Your task to perform on an android device: manage bookmarks in the chrome app Image 0: 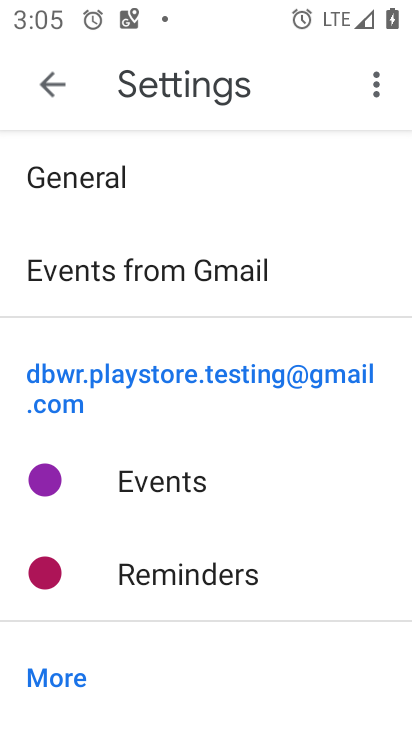
Step 0: press back button
Your task to perform on an android device: manage bookmarks in the chrome app Image 1: 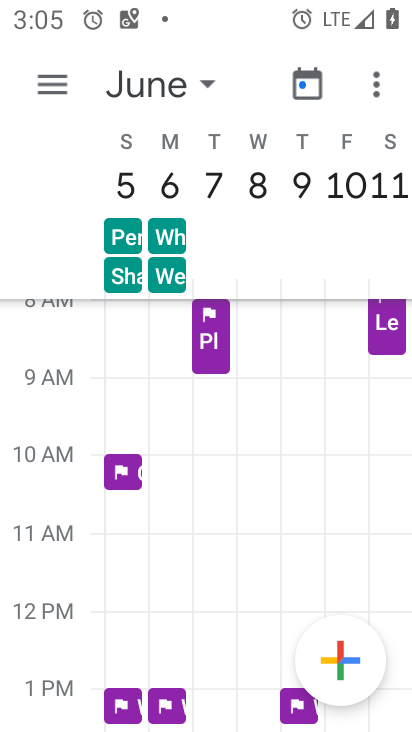
Step 1: press home button
Your task to perform on an android device: manage bookmarks in the chrome app Image 2: 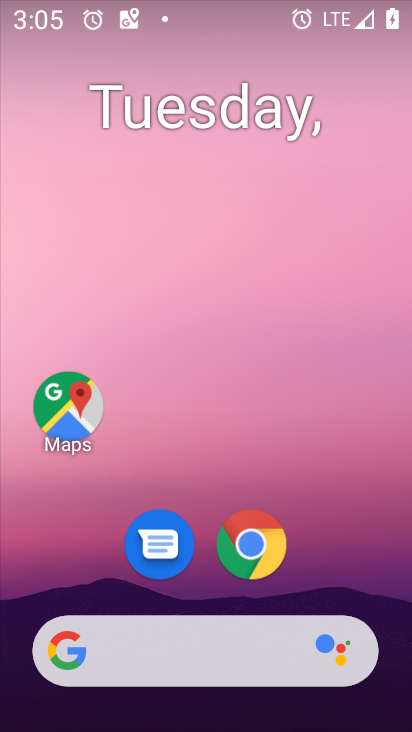
Step 2: click (253, 542)
Your task to perform on an android device: manage bookmarks in the chrome app Image 3: 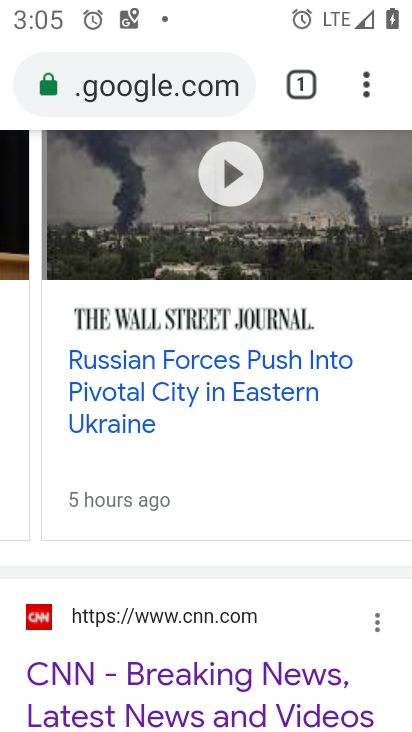
Step 3: task complete